Your task to perform on an android device: check out phone information Image 0: 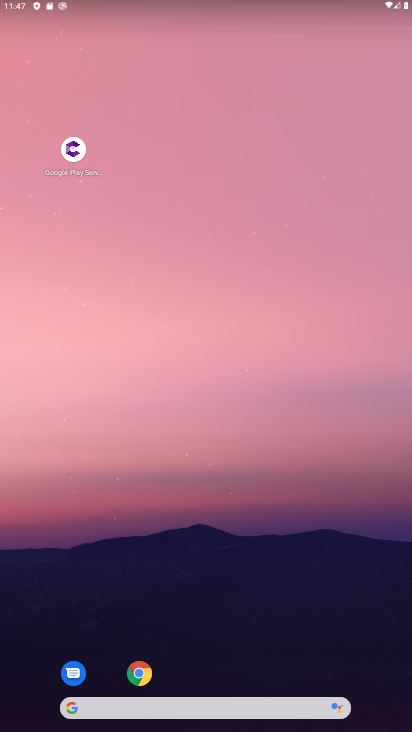
Step 0: drag from (285, 399) to (305, 208)
Your task to perform on an android device: check out phone information Image 1: 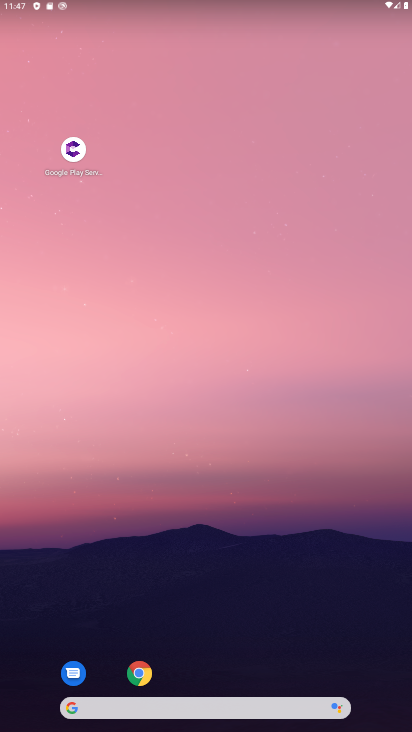
Step 1: click (309, 228)
Your task to perform on an android device: check out phone information Image 2: 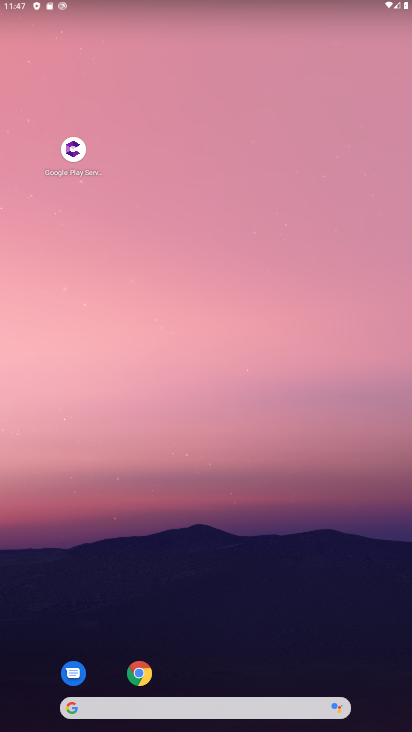
Step 2: drag from (251, 546) to (248, 69)
Your task to perform on an android device: check out phone information Image 3: 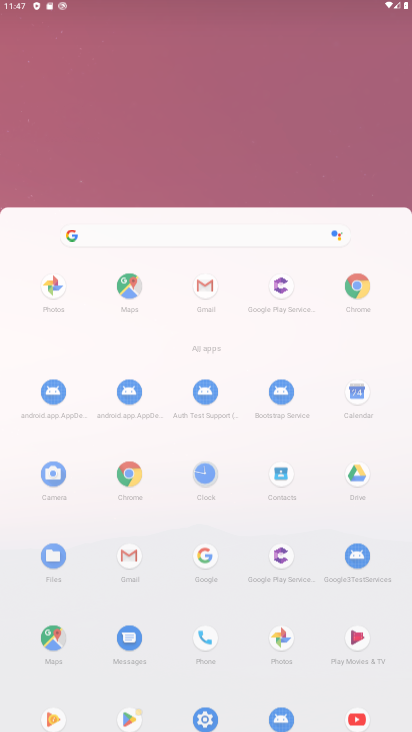
Step 3: drag from (69, 572) to (122, 127)
Your task to perform on an android device: check out phone information Image 4: 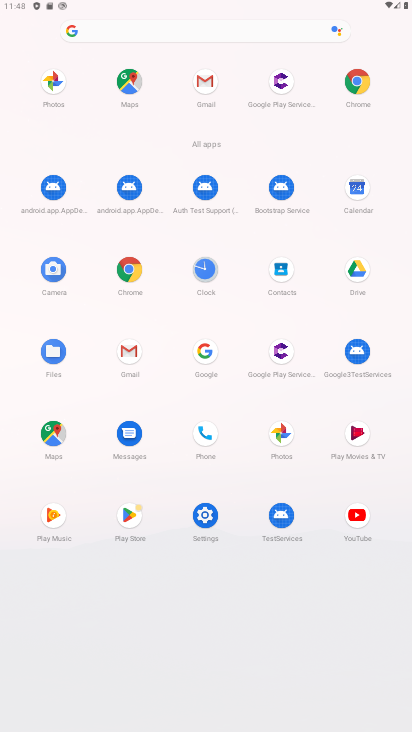
Step 4: click (207, 507)
Your task to perform on an android device: check out phone information Image 5: 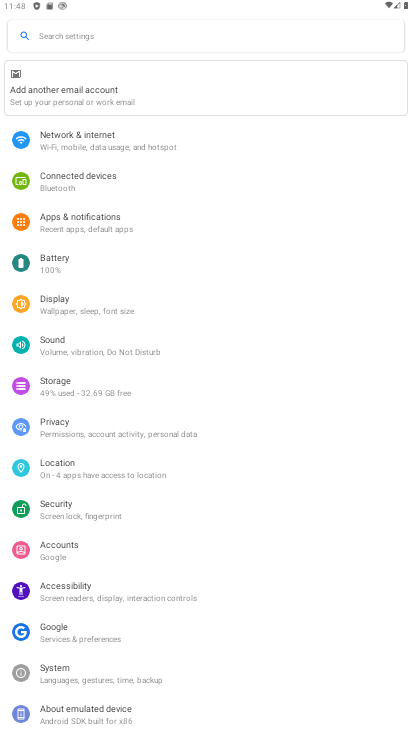
Step 5: drag from (77, 526) to (94, 223)
Your task to perform on an android device: check out phone information Image 6: 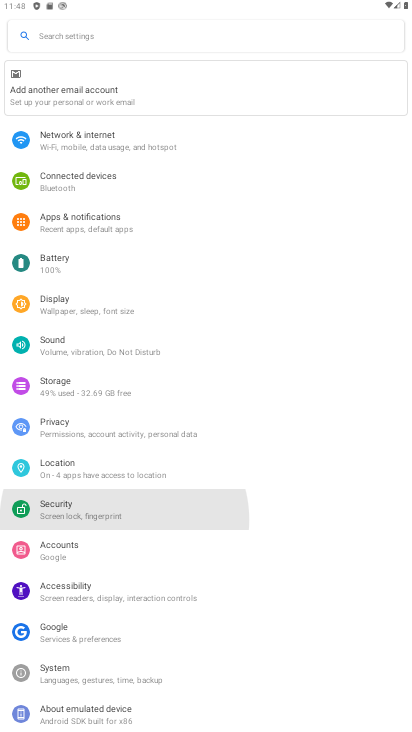
Step 6: drag from (111, 487) to (132, 359)
Your task to perform on an android device: check out phone information Image 7: 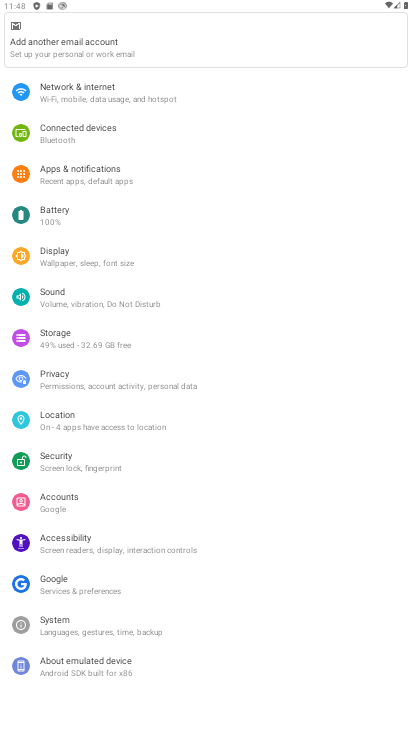
Step 7: click (67, 672)
Your task to perform on an android device: check out phone information Image 8: 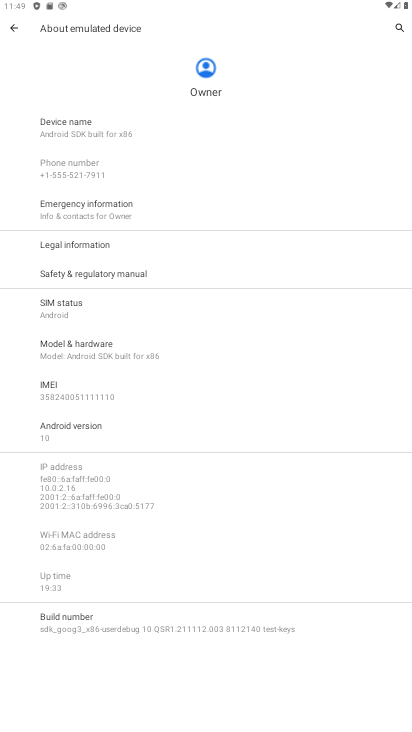
Step 8: task complete